Your task to perform on an android device: delete location history Image 0: 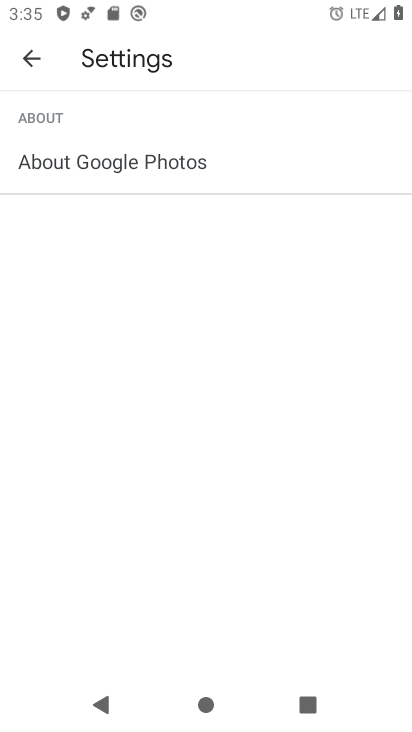
Step 0: press home button
Your task to perform on an android device: delete location history Image 1: 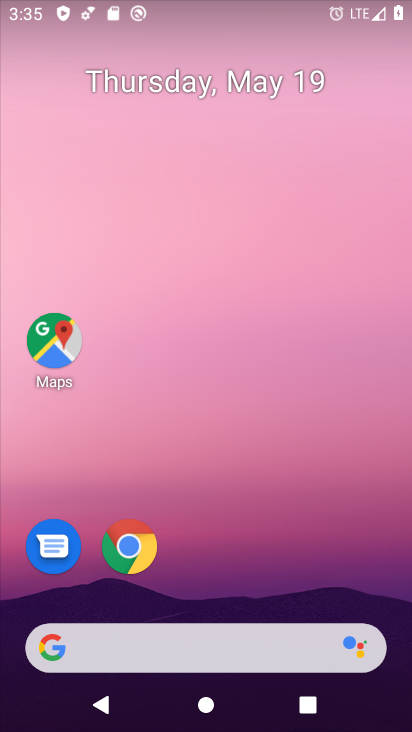
Step 1: drag from (231, 605) to (211, 92)
Your task to perform on an android device: delete location history Image 2: 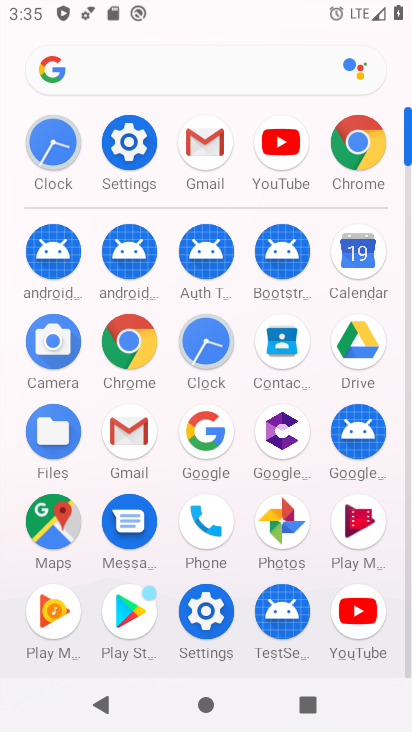
Step 2: click (50, 519)
Your task to perform on an android device: delete location history Image 3: 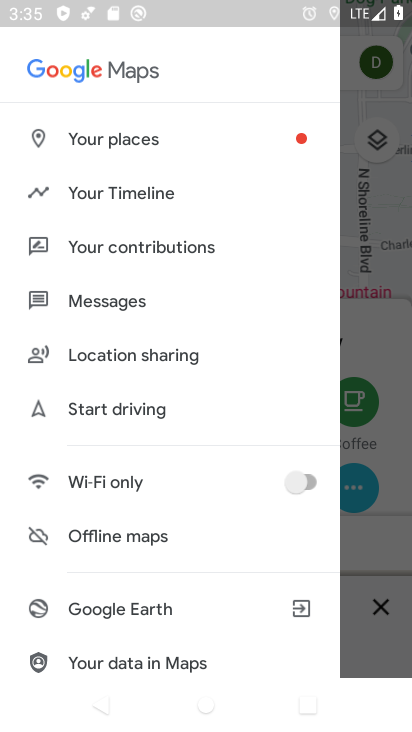
Step 3: click (197, 636)
Your task to perform on an android device: delete location history Image 4: 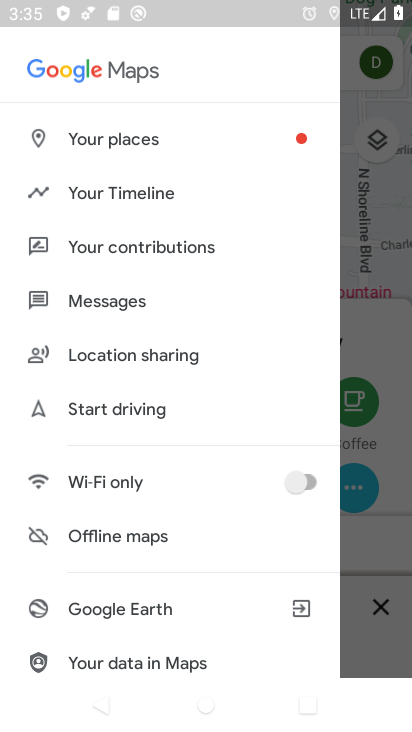
Step 4: click (185, 193)
Your task to perform on an android device: delete location history Image 5: 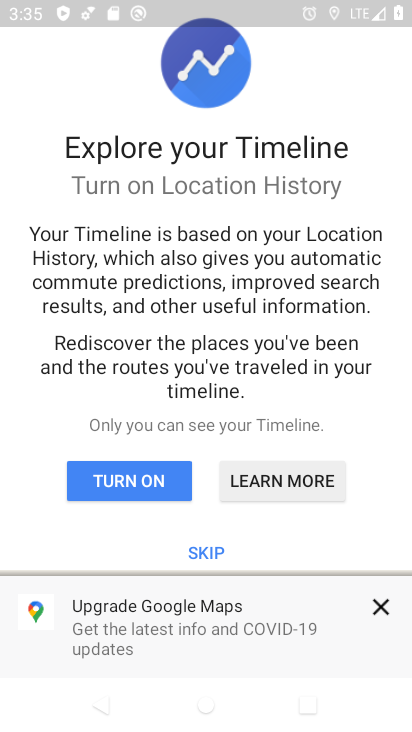
Step 5: click (129, 484)
Your task to perform on an android device: delete location history Image 6: 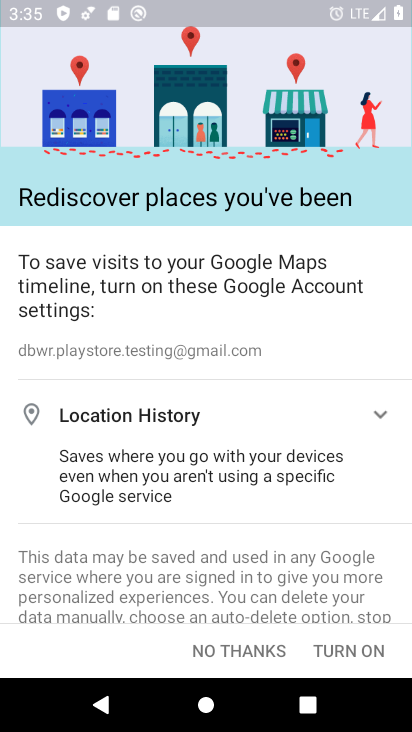
Step 6: drag from (299, 574) to (314, 162)
Your task to perform on an android device: delete location history Image 7: 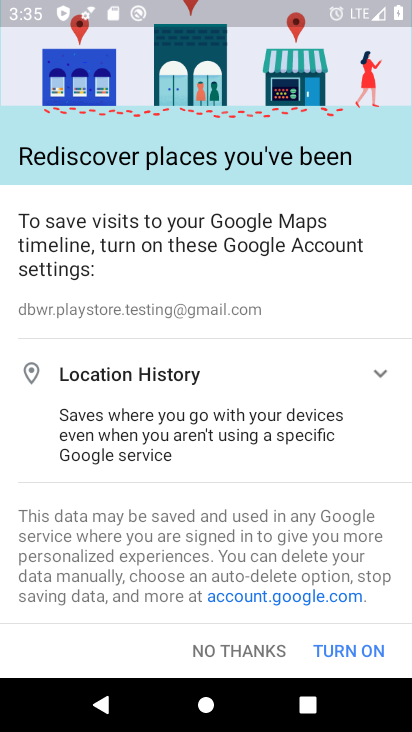
Step 7: click (356, 654)
Your task to perform on an android device: delete location history Image 8: 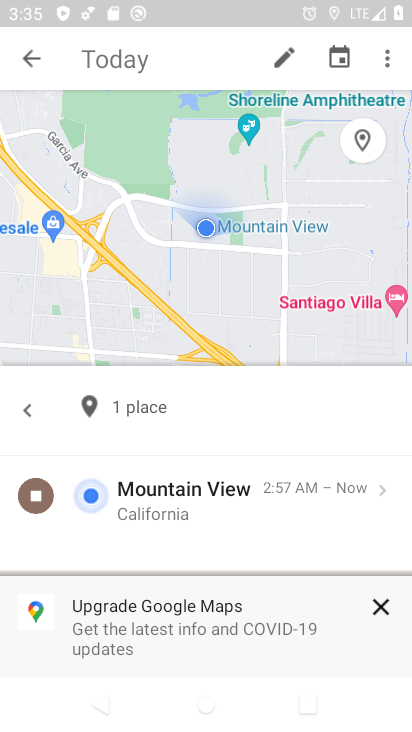
Step 8: click (383, 608)
Your task to perform on an android device: delete location history Image 9: 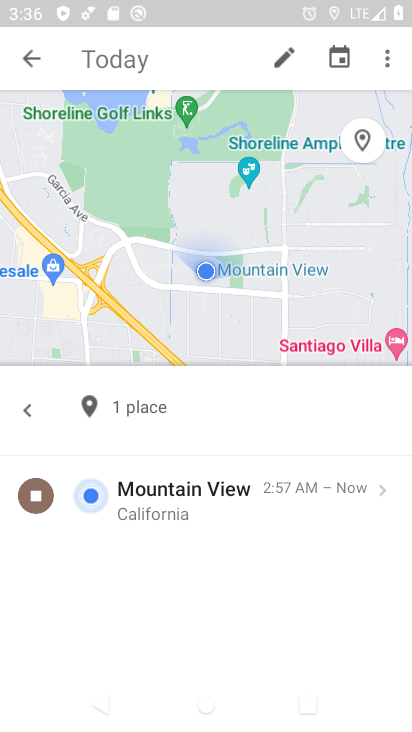
Step 9: click (388, 54)
Your task to perform on an android device: delete location history Image 10: 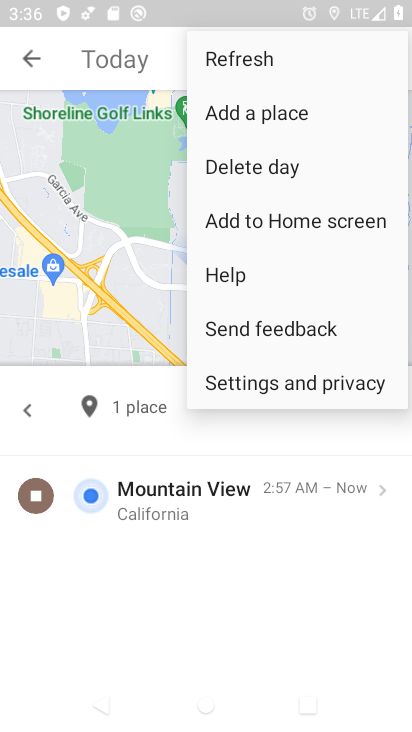
Step 10: click (324, 376)
Your task to perform on an android device: delete location history Image 11: 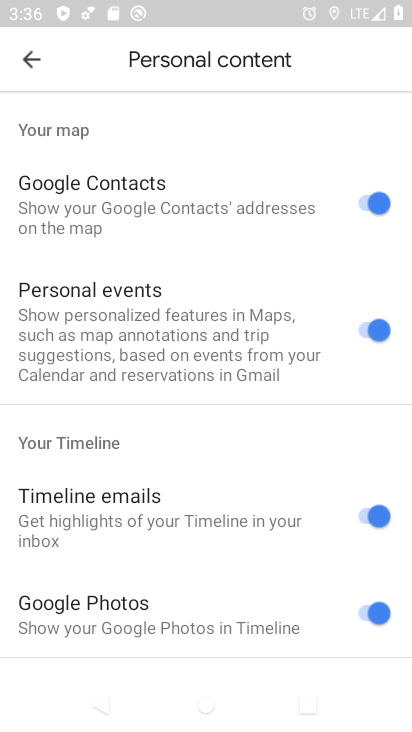
Step 11: drag from (186, 580) to (227, 100)
Your task to perform on an android device: delete location history Image 12: 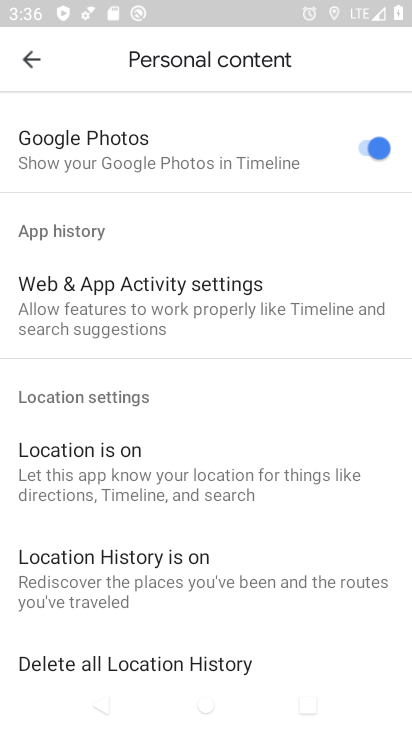
Step 12: drag from (210, 636) to (240, 291)
Your task to perform on an android device: delete location history Image 13: 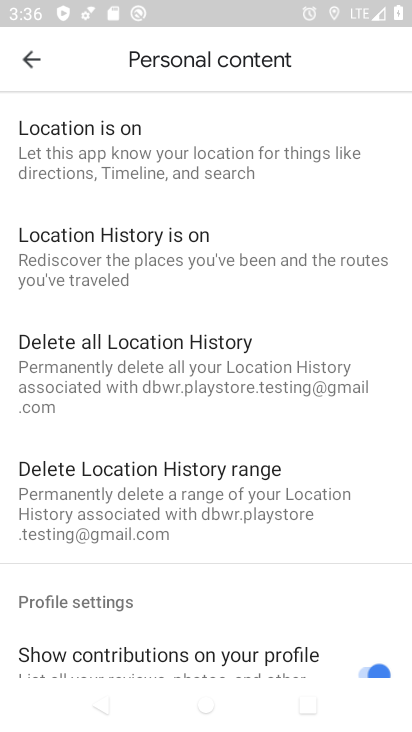
Step 13: click (191, 380)
Your task to perform on an android device: delete location history Image 14: 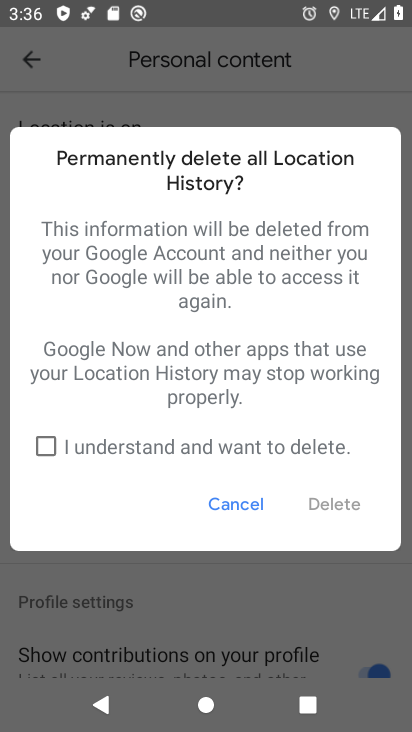
Step 14: click (48, 440)
Your task to perform on an android device: delete location history Image 15: 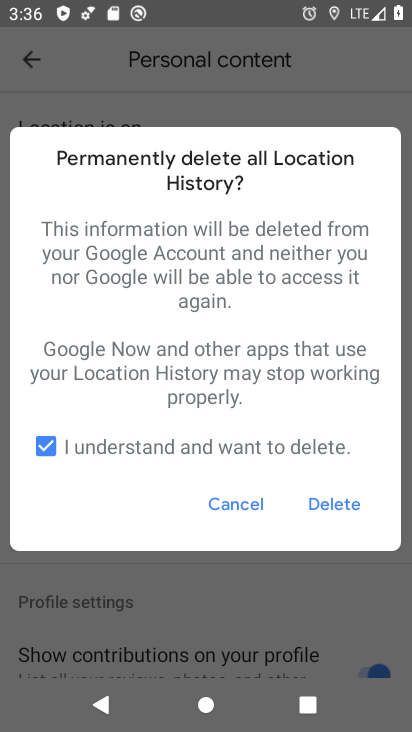
Step 15: click (340, 508)
Your task to perform on an android device: delete location history Image 16: 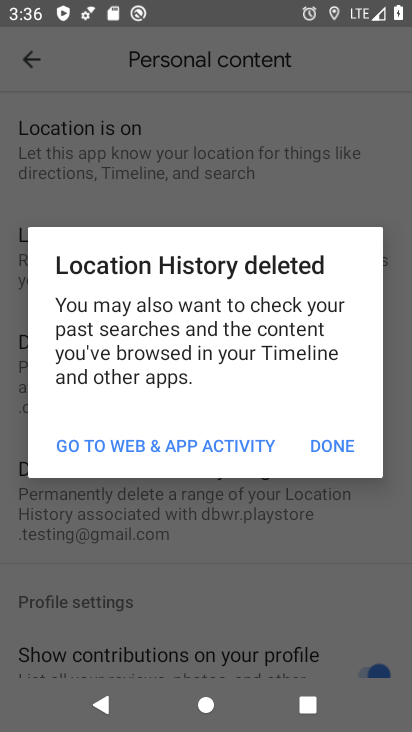
Step 16: click (325, 441)
Your task to perform on an android device: delete location history Image 17: 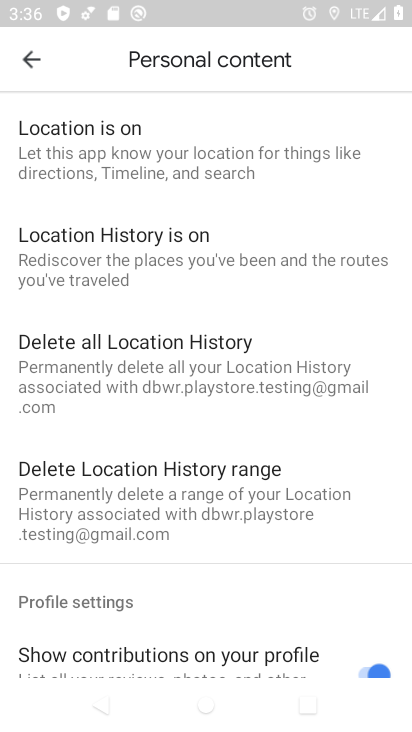
Step 17: task complete